Your task to perform on an android device: set the timer Image 0: 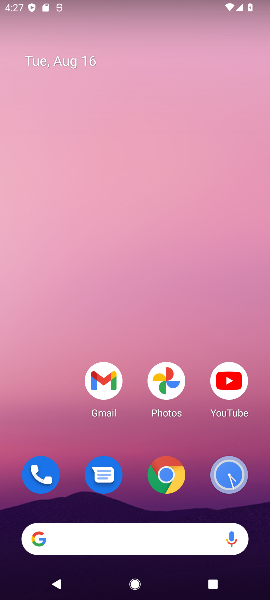
Step 0: drag from (200, 434) to (119, 50)
Your task to perform on an android device: set the timer Image 1: 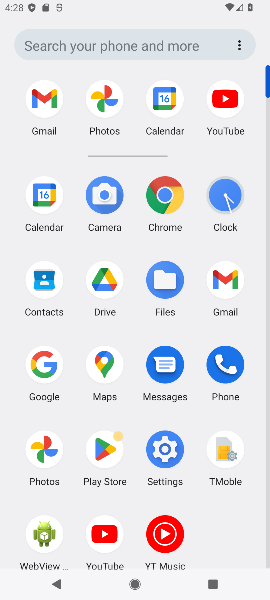
Step 1: click (228, 193)
Your task to perform on an android device: set the timer Image 2: 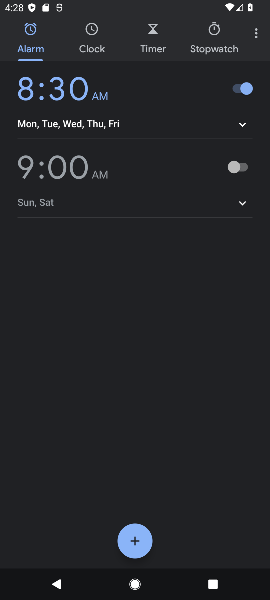
Step 2: click (155, 42)
Your task to perform on an android device: set the timer Image 3: 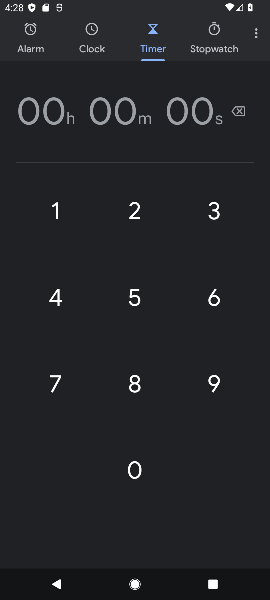
Step 3: click (29, 33)
Your task to perform on an android device: set the timer Image 4: 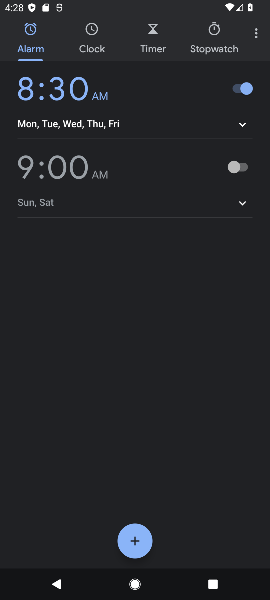
Step 4: click (154, 45)
Your task to perform on an android device: set the timer Image 5: 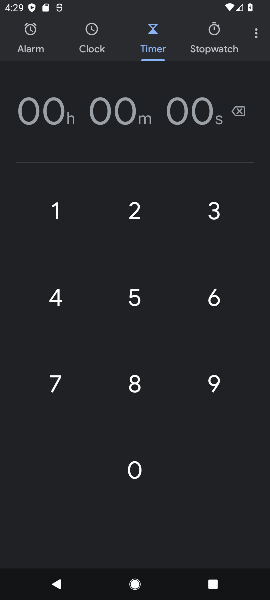
Step 5: click (211, 208)
Your task to perform on an android device: set the timer Image 6: 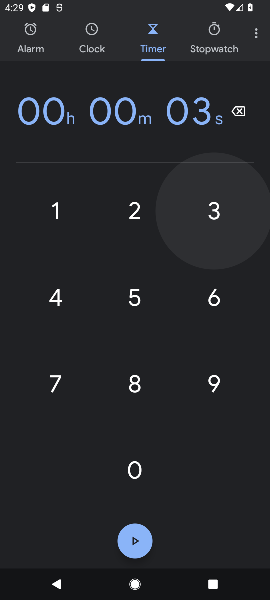
Step 6: click (211, 208)
Your task to perform on an android device: set the timer Image 7: 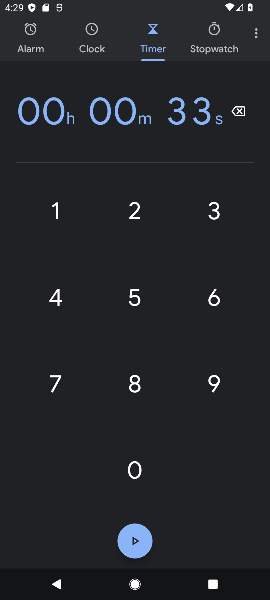
Step 7: click (211, 208)
Your task to perform on an android device: set the timer Image 8: 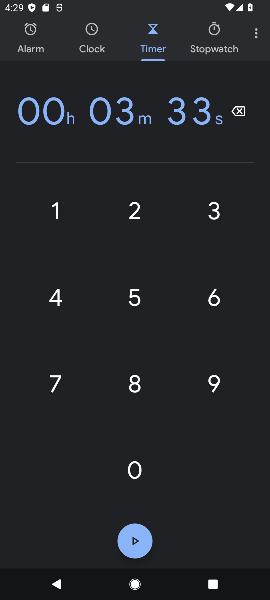
Step 8: click (211, 208)
Your task to perform on an android device: set the timer Image 9: 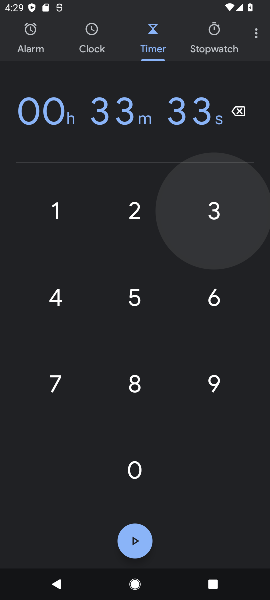
Step 9: click (211, 208)
Your task to perform on an android device: set the timer Image 10: 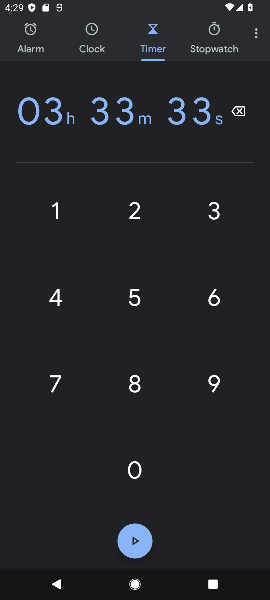
Step 10: task complete